Your task to perform on an android device: toggle airplane mode Image 0: 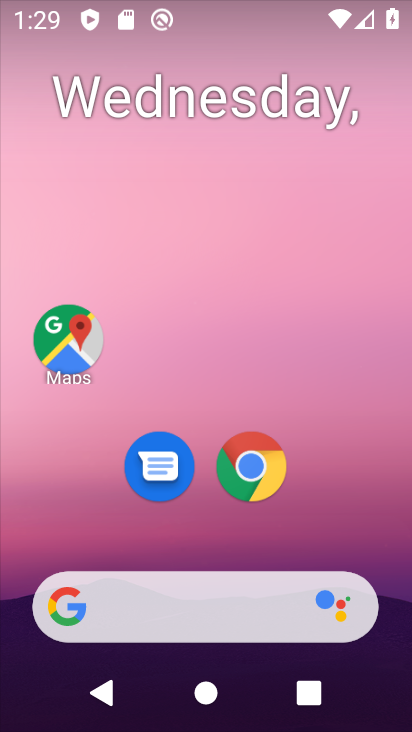
Step 0: press home button
Your task to perform on an android device: toggle airplane mode Image 1: 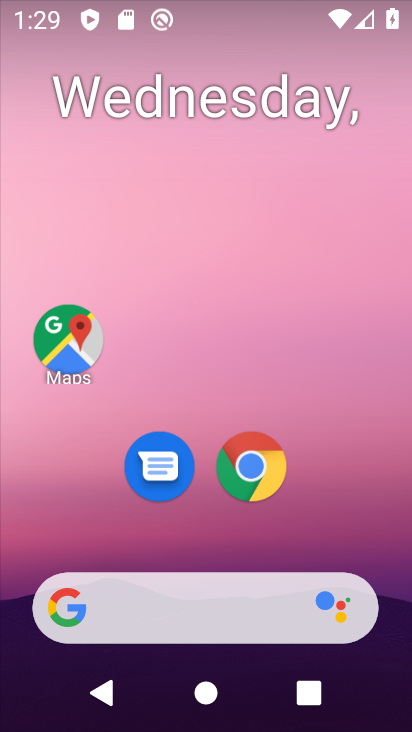
Step 1: drag from (184, 608) to (230, 129)
Your task to perform on an android device: toggle airplane mode Image 2: 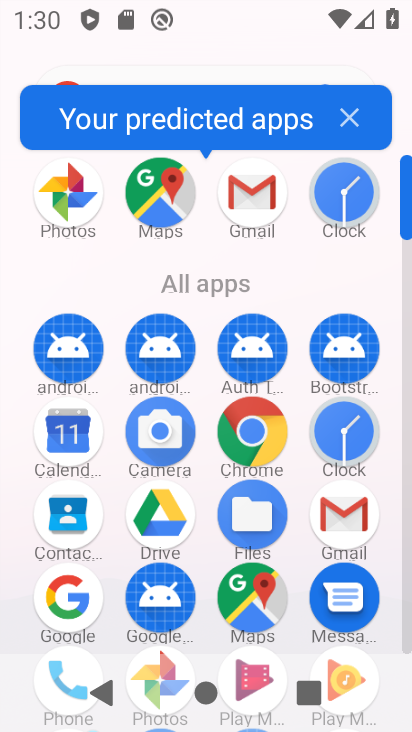
Step 2: drag from (212, 535) to (301, 138)
Your task to perform on an android device: toggle airplane mode Image 3: 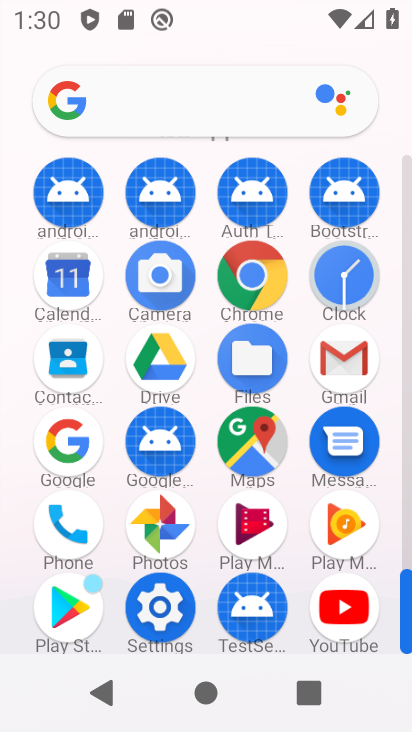
Step 3: click (161, 605)
Your task to perform on an android device: toggle airplane mode Image 4: 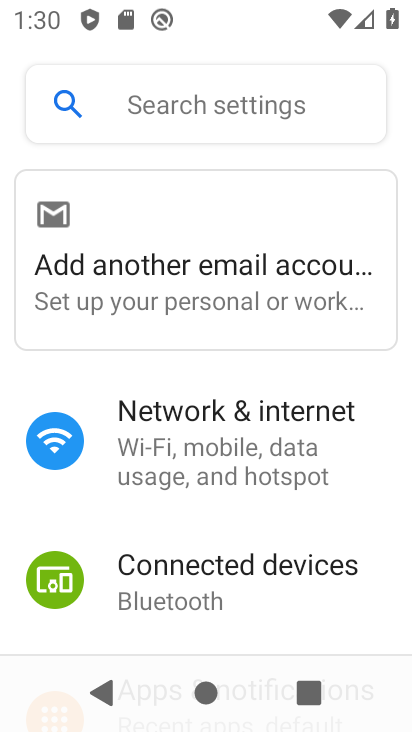
Step 4: click (240, 414)
Your task to perform on an android device: toggle airplane mode Image 5: 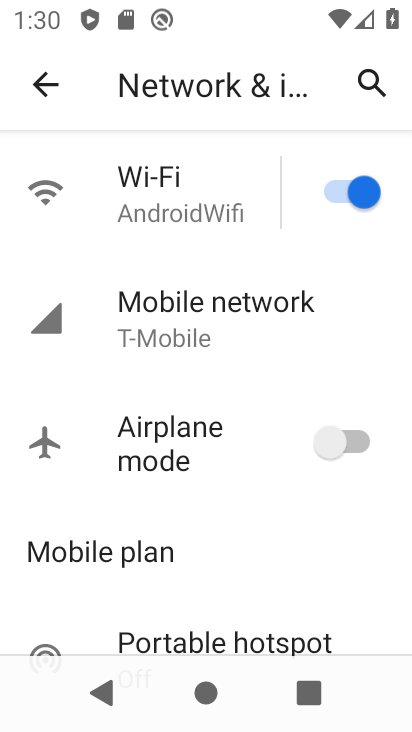
Step 5: click (360, 442)
Your task to perform on an android device: toggle airplane mode Image 6: 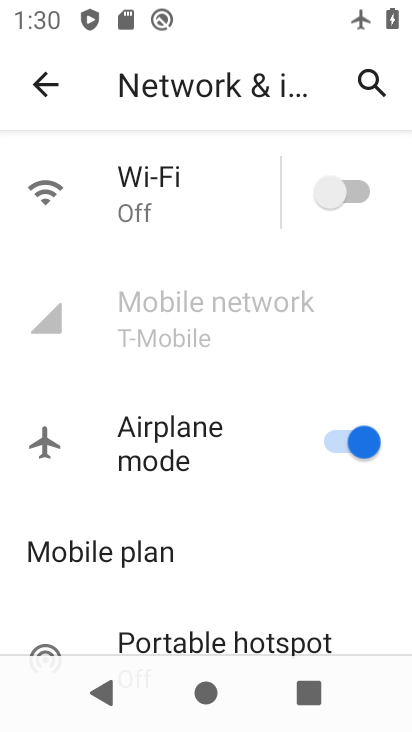
Step 6: task complete